Your task to perform on an android device: toggle location history Image 0: 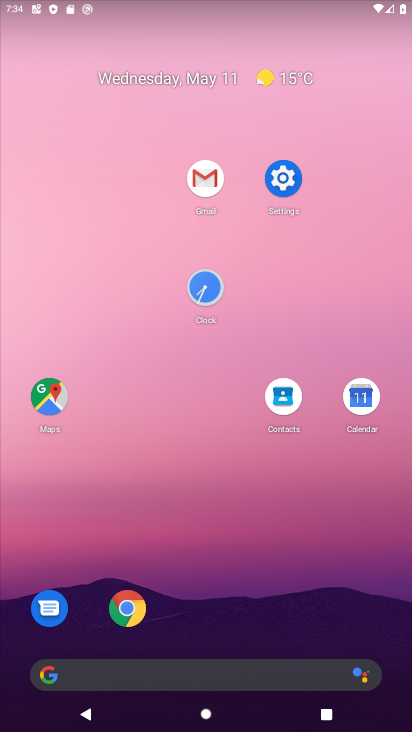
Step 0: click (283, 185)
Your task to perform on an android device: toggle location history Image 1: 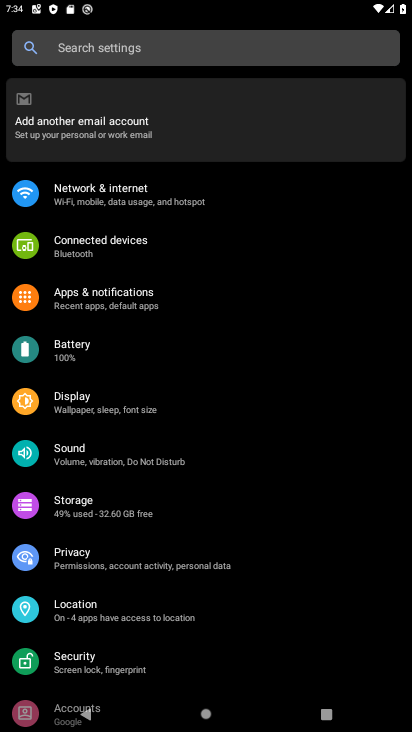
Step 1: click (136, 299)
Your task to perform on an android device: toggle location history Image 2: 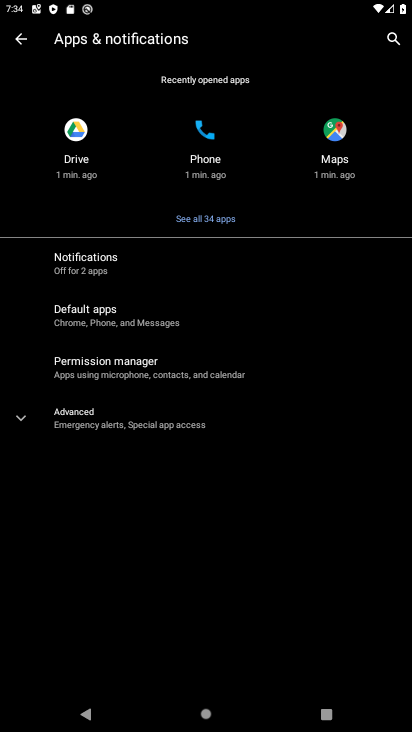
Step 2: click (34, 43)
Your task to perform on an android device: toggle location history Image 3: 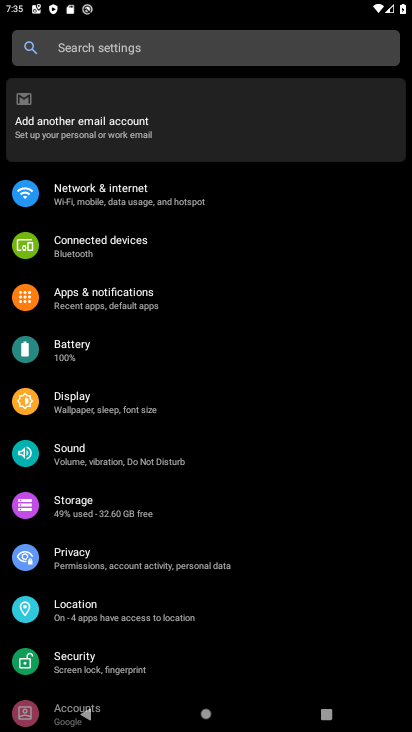
Step 3: click (144, 613)
Your task to perform on an android device: toggle location history Image 4: 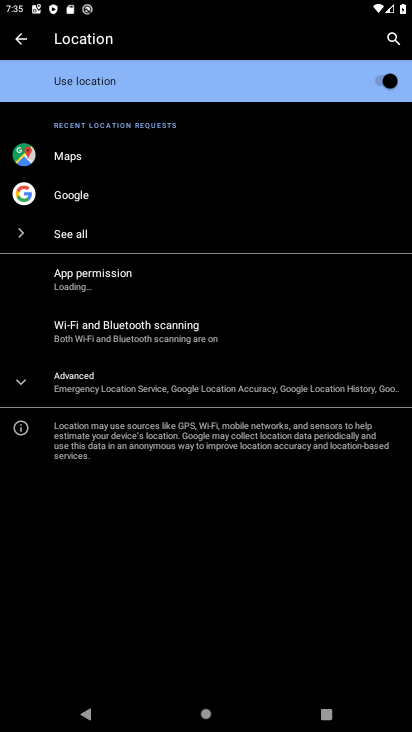
Step 4: click (141, 387)
Your task to perform on an android device: toggle location history Image 5: 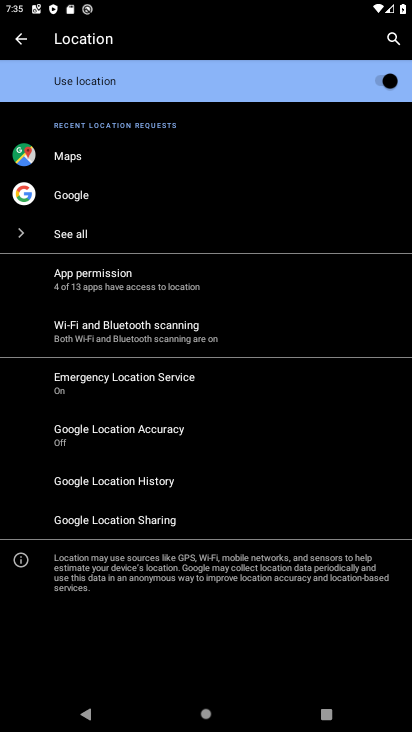
Step 5: click (147, 482)
Your task to perform on an android device: toggle location history Image 6: 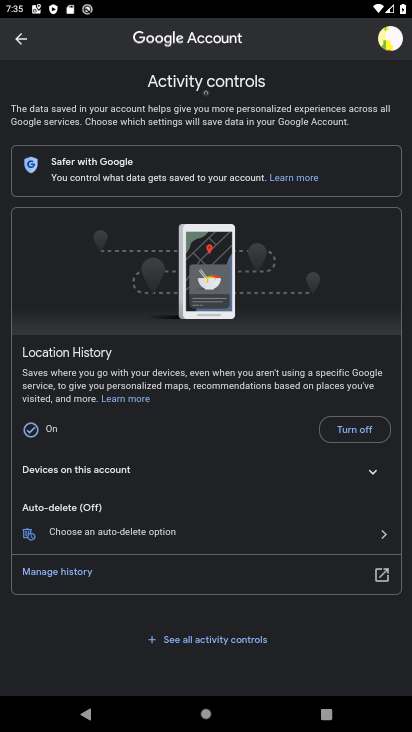
Step 6: click (345, 429)
Your task to perform on an android device: toggle location history Image 7: 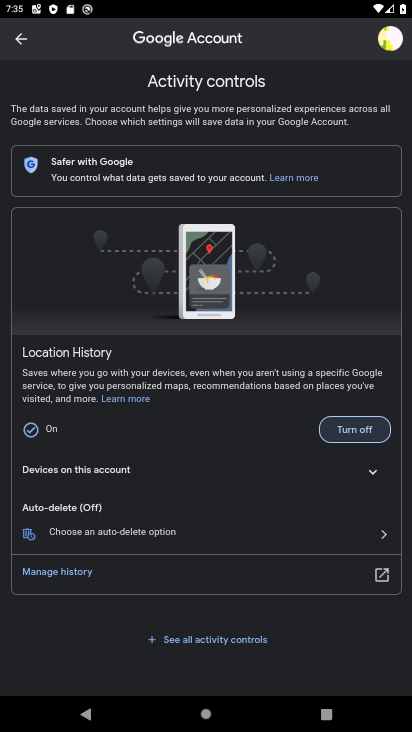
Step 7: click (345, 429)
Your task to perform on an android device: toggle location history Image 8: 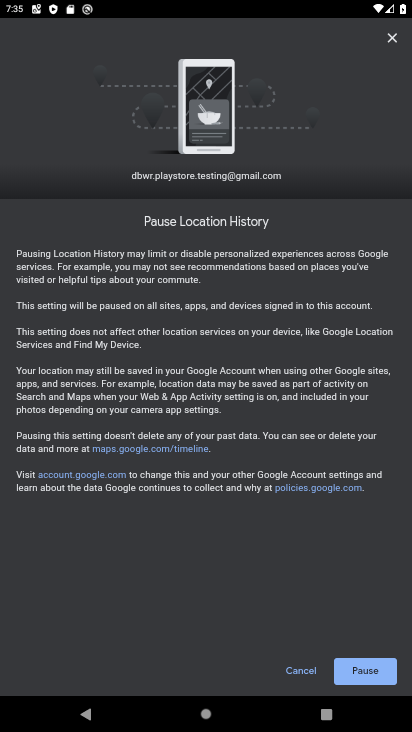
Step 8: click (362, 671)
Your task to perform on an android device: toggle location history Image 9: 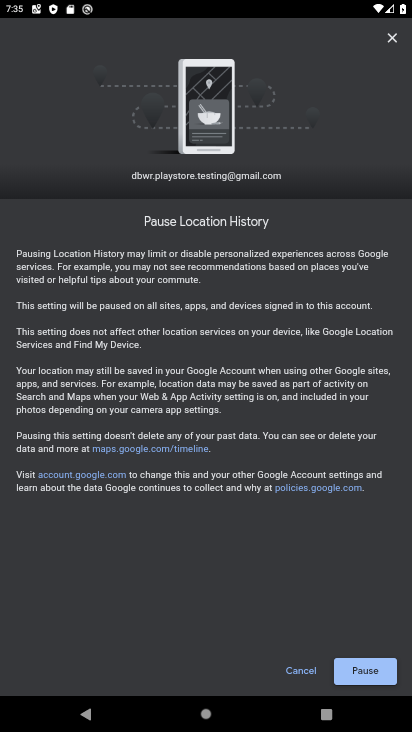
Step 9: click (362, 671)
Your task to perform on an android device: toggle location history Image 10: 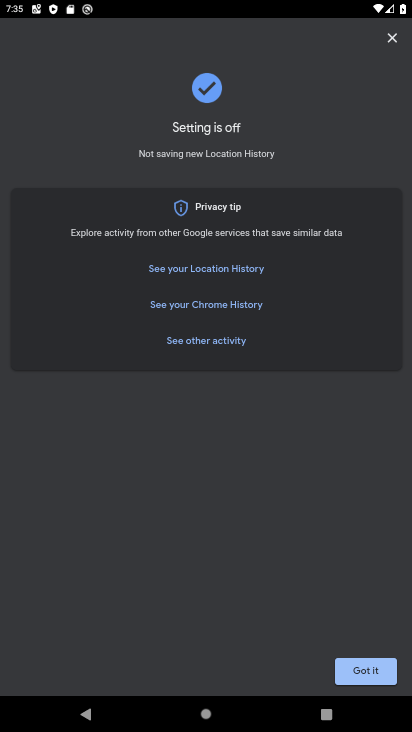
Step 10: click (362, 662)
Your task to perform on an android device: toggle location history Image 11: 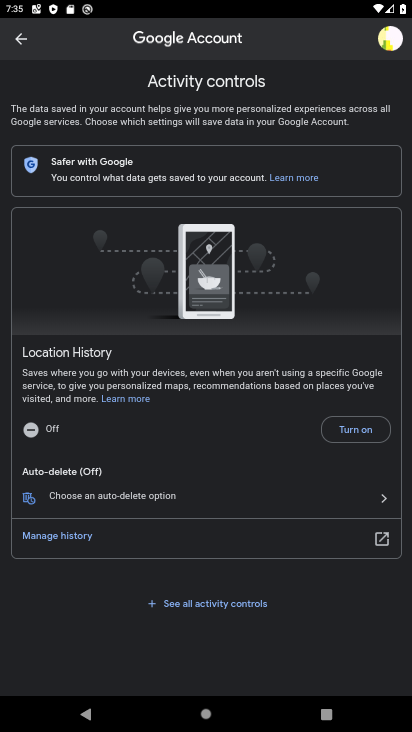
Step 11: task complete